Your task to perform on an android device: check the backup settings in the google photos Image 0: 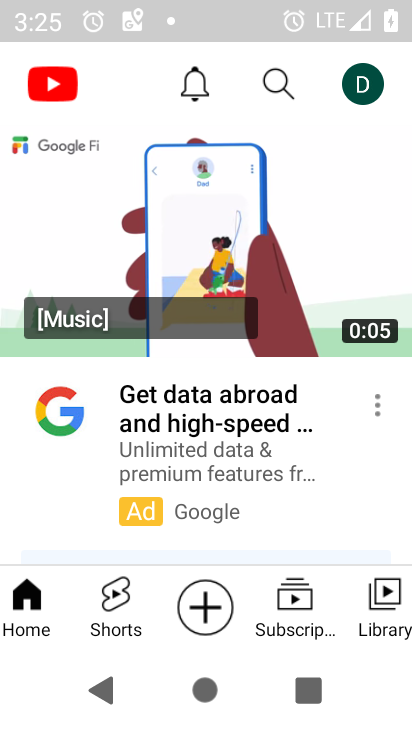
Step 0: press home button
Your task to perform on an android device: check the backup settings in the google photos Image 1: 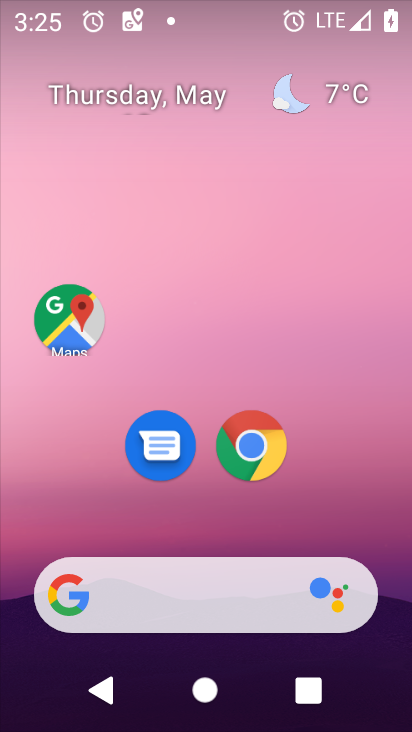
Step 1: drag from (360, 555) to (345, 63)
Your task to perform on an android device: check the backup settings in the google photos Image 2: 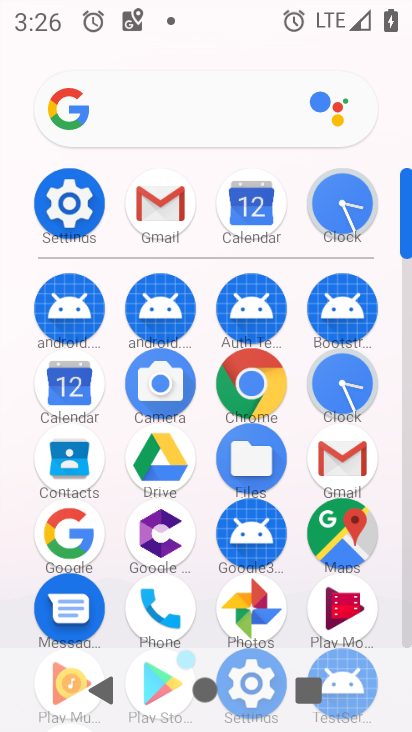
Step 2: click (255, 610)
Your task to perform on an android device: check the backup settings in the google photos Image 3: 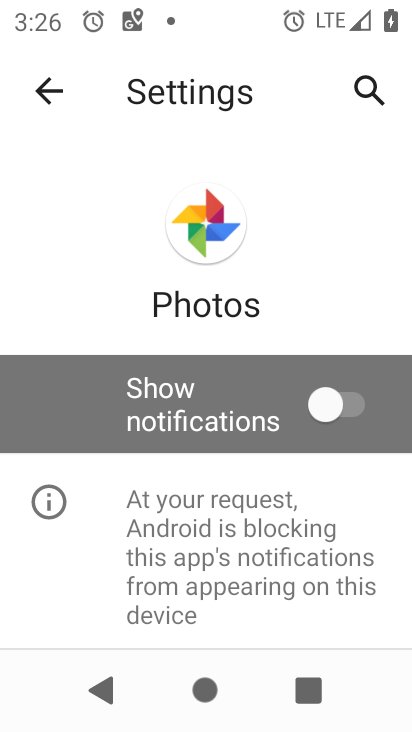
Step 3: click (47, 94)
Your task to perform on an android device: check the backup settings in the google photos Image 4: 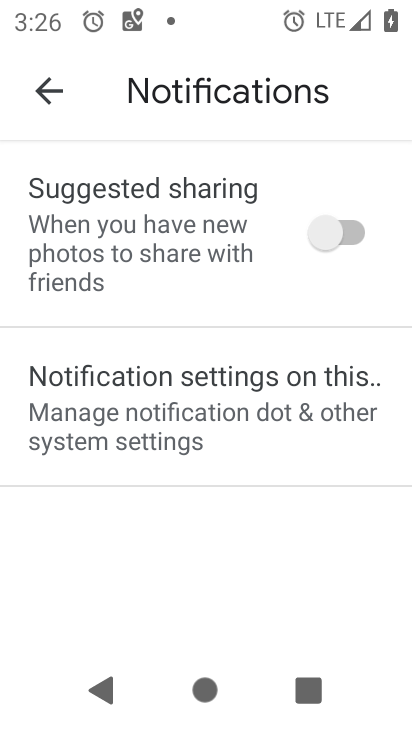
Step 4: click (47, 94)
Your task to perform on an android device: check the backup settings in the google photos Image 5: 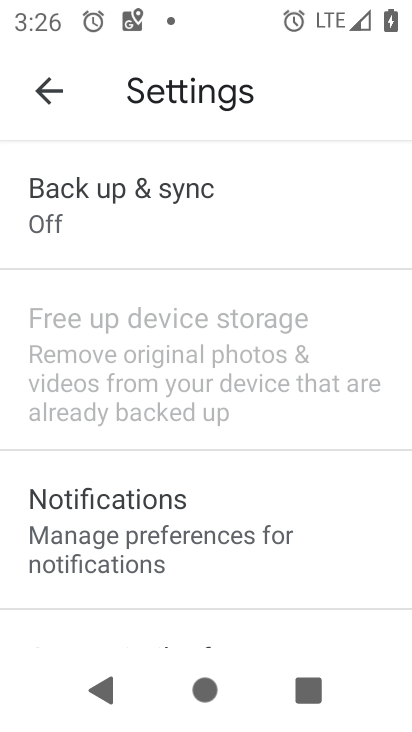
Step 5: click (100, 189)
Your task to perform on an android device: check the backup settings in the google photos Image 6: 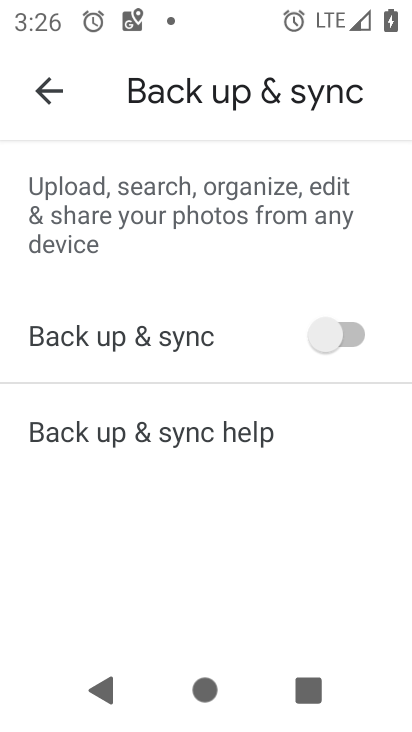
Step 6: task complete